Your task to perform on an android device: turn on wifi Image 0: 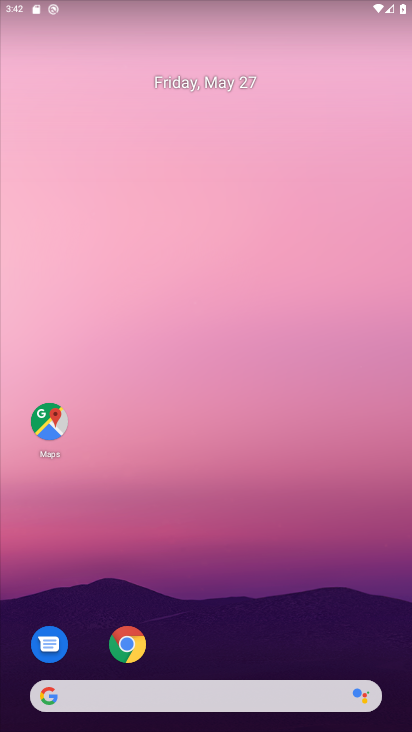
Step 0: drag from (282, 576) to (135, 101)
Your task to perform on an android device: turn on wifi Image 1: 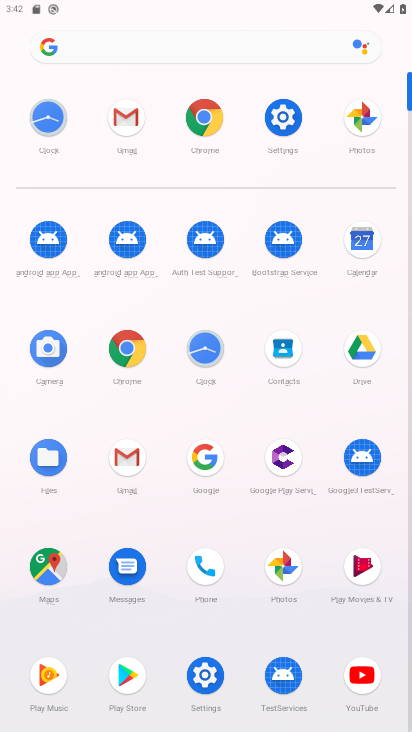
Step 1: click (261, 117)
Your task to perform on an android device: turn on wifi Image 2: 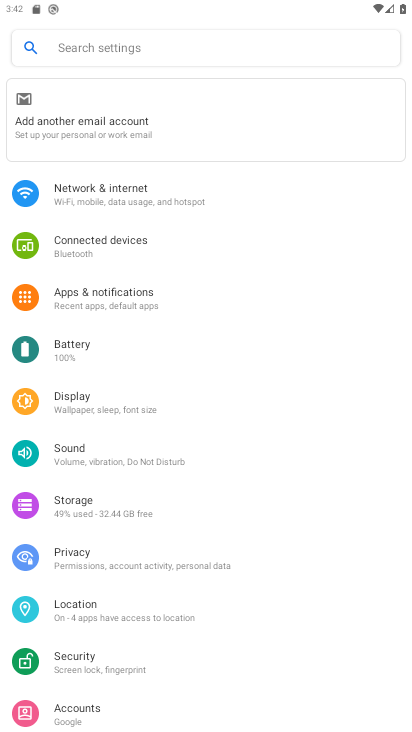
Step 2: click (165, 205)
Your task to perform on an android device: turn on wifi Image 3: 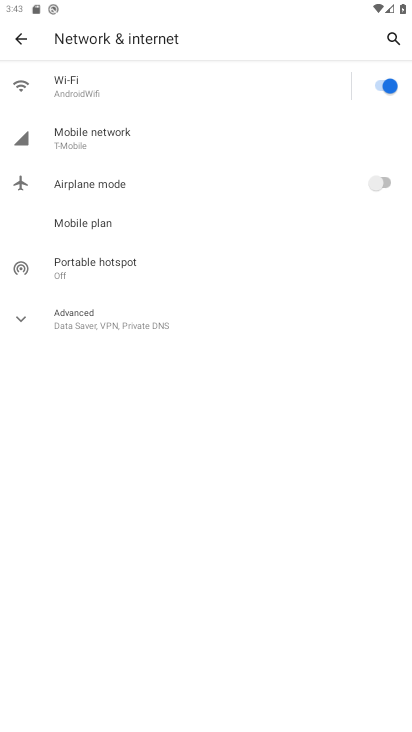
Step 3: task complete